Your task to perform on an android device: check battery use Image 0: 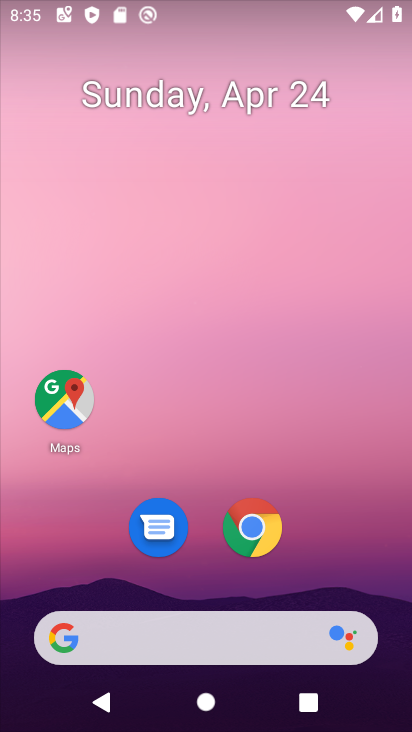
Step 0: drag from (379, 613) to (281, 125)
Your task to perform on an android device: check battery use Image 1: 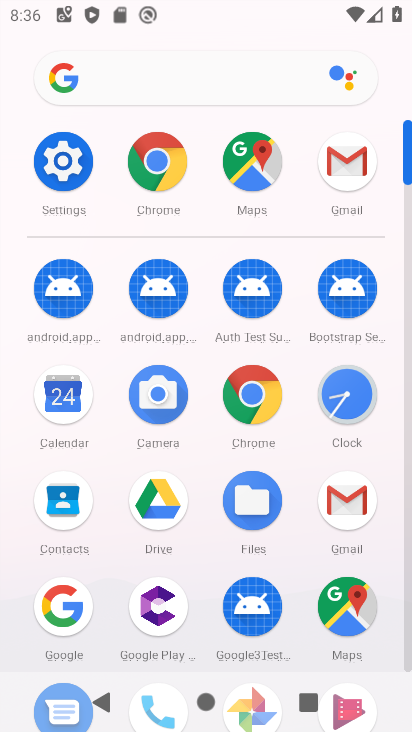
Step 1: click (67, 167)
Your task to perform on an android device: check battery use Image 2: 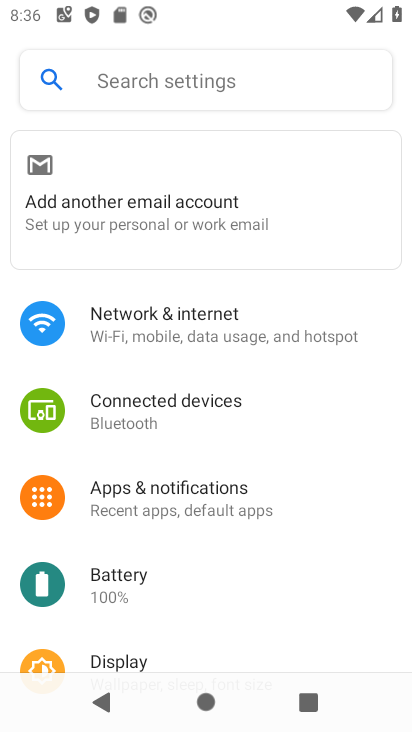
Step 2: click (149, 596)
Your task to perform on an android device: check battery use Image 3: 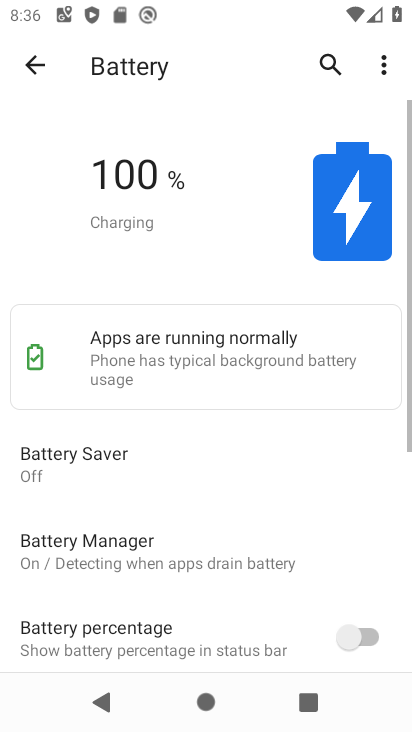
Step 3: click (382, 55)
Your task to perform on an android device: check battery use Image 4: 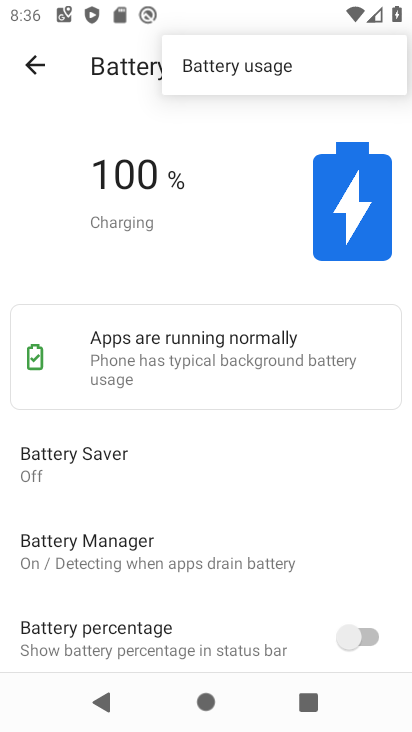
Step 4: click (259, 75)
Your task to perform on an android device: check battery use Image 5: 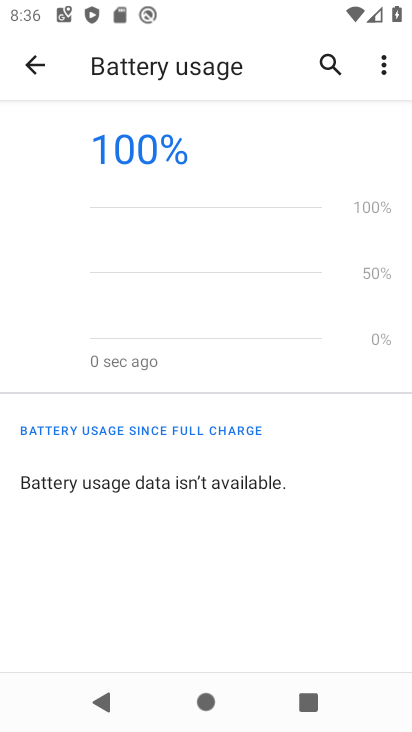
Step 5: task complete